Your task to perform on an android device: Go to accessibility settings Image 0: 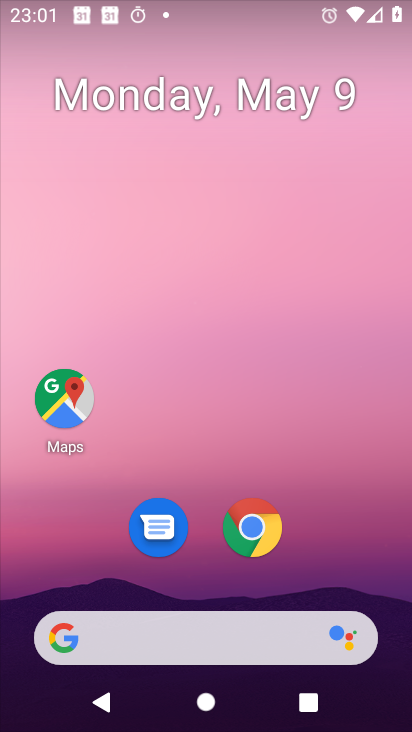
Step 0: drag from (203, 574) to (174, 96)
Your task to perform on an android device: Go to accessibility settings Image 1: 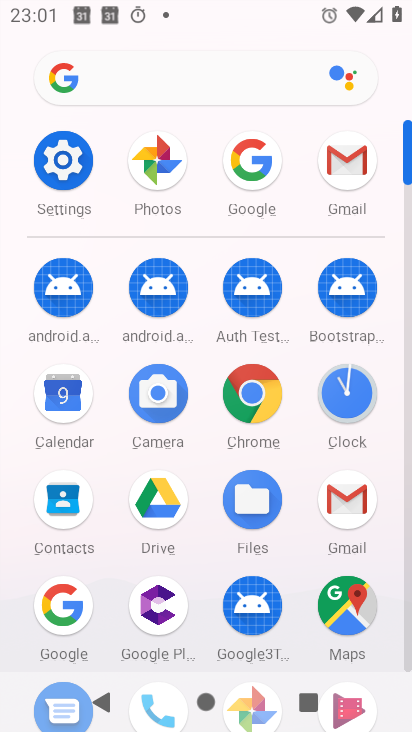
Step 1: click (64, 153)
Your task to perform on an android device: Go to accessibility settings Image 2: 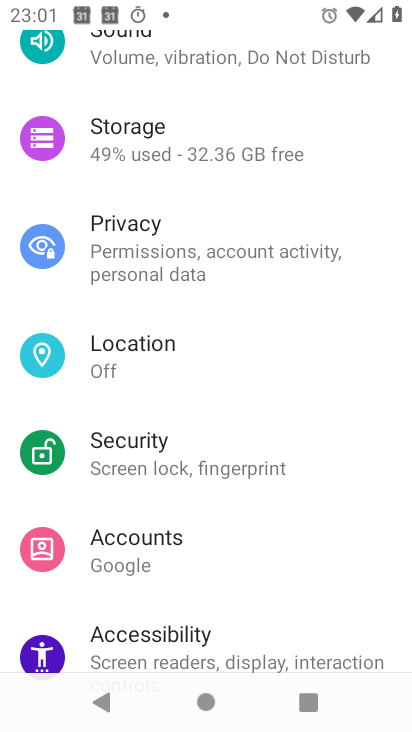
Step 2: click (161, 639)
Your task to perform on an android device: Go to accessibility settings Image 3: 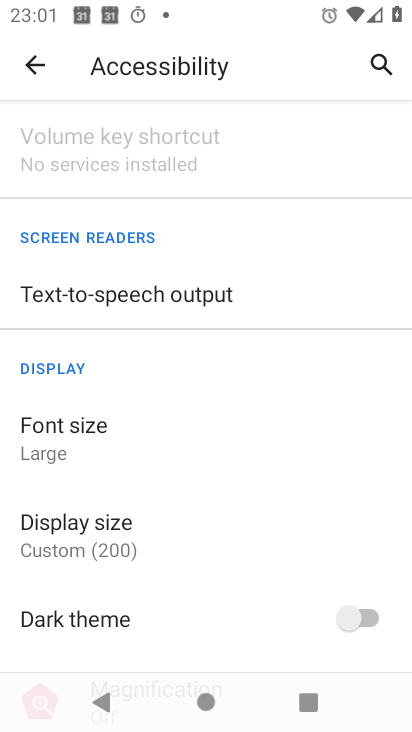
Step 3: task complete